Your task to perform on an android device: move an email to a new category in the gmail app Image 0: 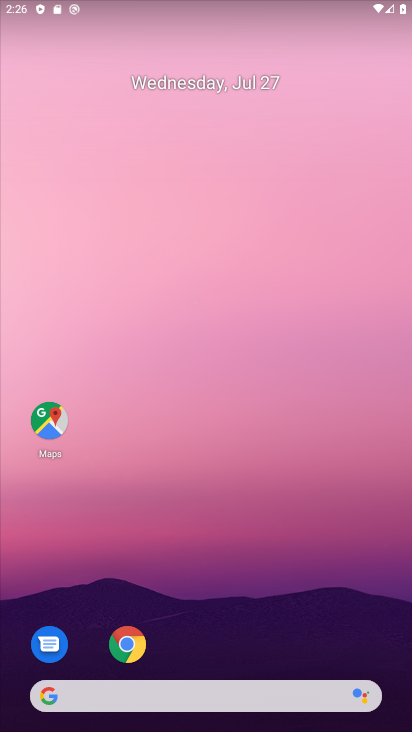
Step 0: drag from (244, 644) to (232, 0)
Your task to perform on an android device: move an email to a new category in the gmail app Image 1: 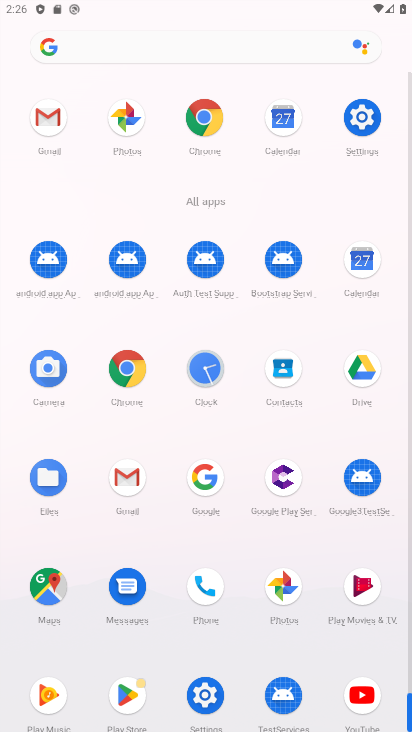
Step 1: click (123, 473)
Your task to perform on an android device: move an email to a new category in the gmail app Image 2: 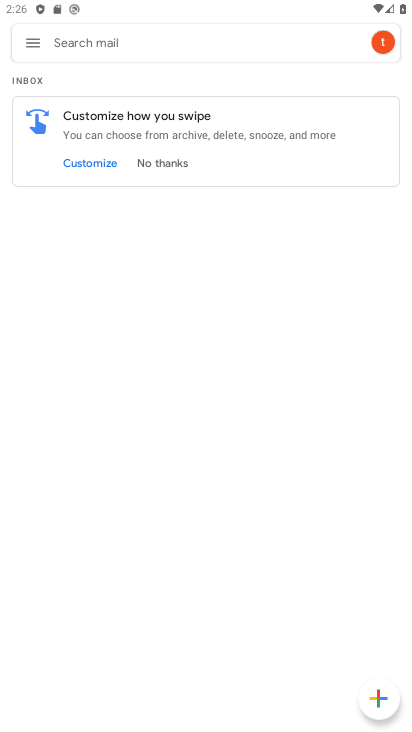
Step 2: task complete